Your task to perform on an android device: turn off improve location accuracy Image 0: 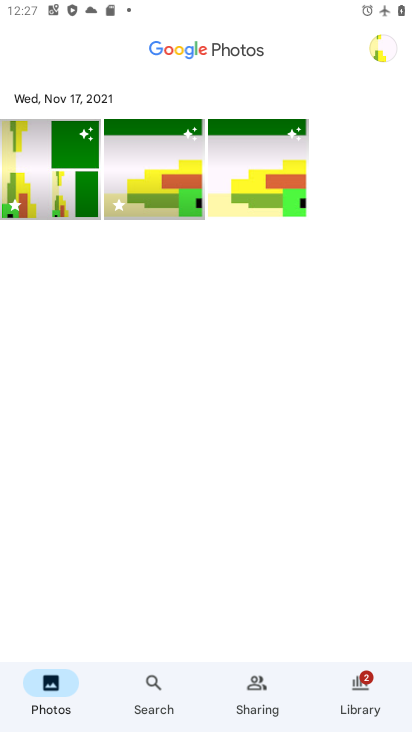
Step 0: press home button
Your task to perform on an android device: turn off improve location accuracy Image 1: 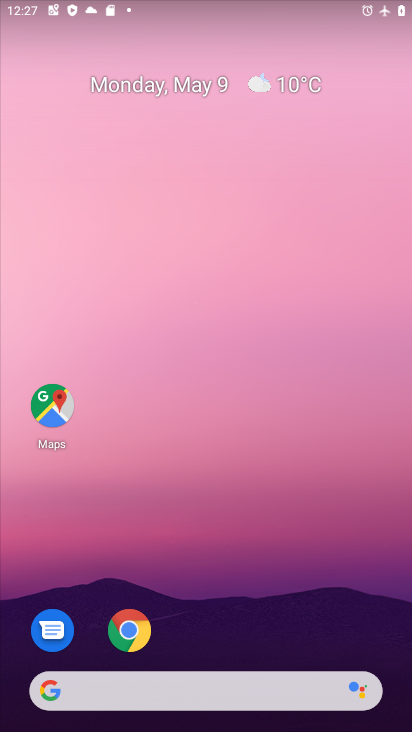
Step 1: drag from (317, 615) to (282, 118)
Your task to perform on an android device: turn off improve location accuracy Image 2: 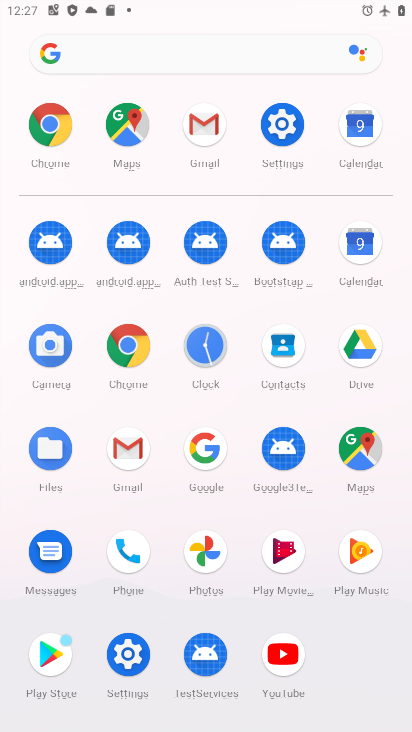
Step 2: click (137, 661)
Your task to perform on an android device: turn off improve location accuracy Image 3: 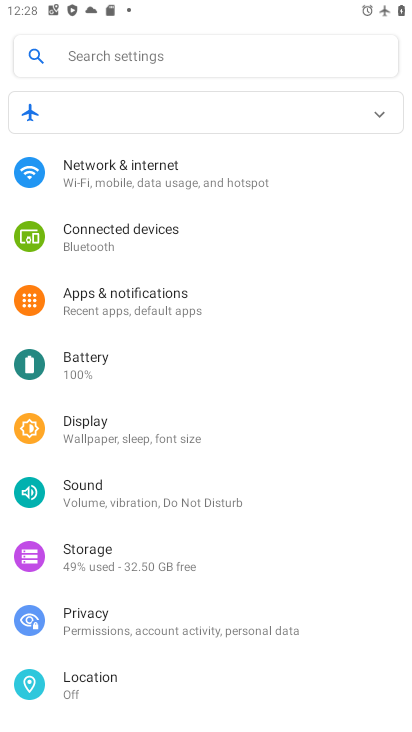
Step 3: click (106, 678)
Your task to perform on an android device: turn off improve location accuracy Image 4: 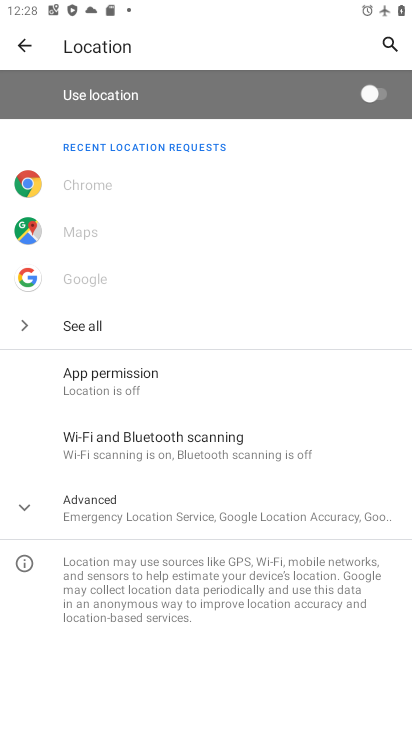
Step 4: click (87, 506)
Your task to perform on an android device: turn off improve location accuracy Image 5: 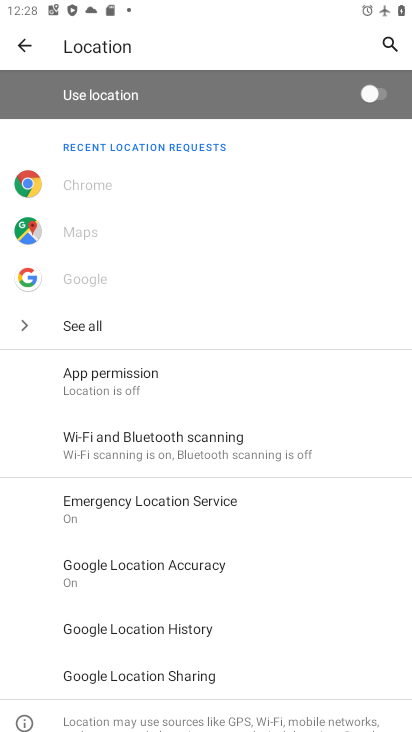
Step 5: click (175, 585)
Your task to perform on an android device: turn off improve location accuracy Image 6: 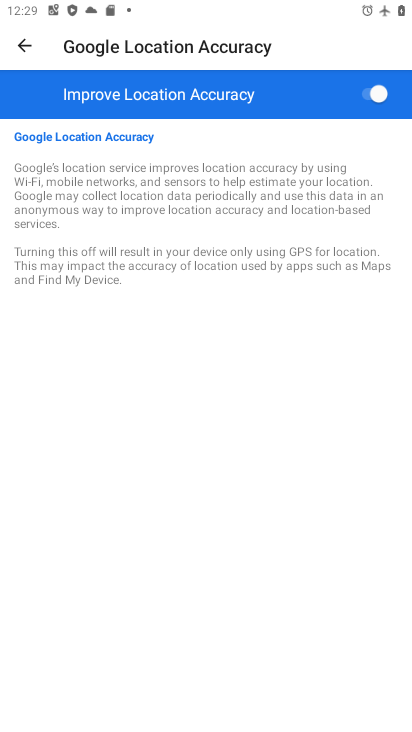
Step 6: click (332, 93)
Your task to perform on an android device: turn off improve location accuracy Image 7: 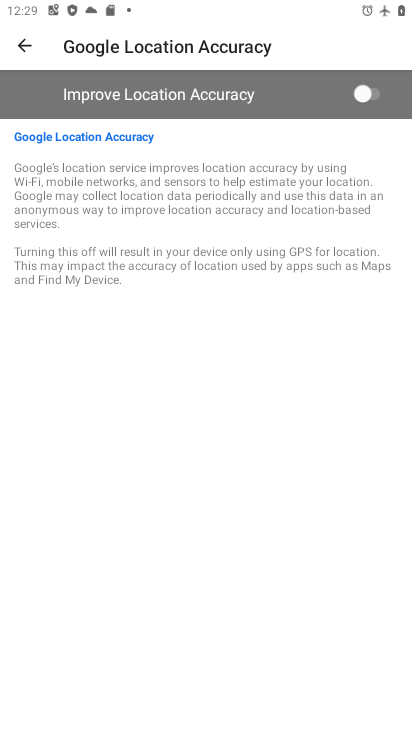
Step 7: task complete